Your task to perform on an android device: change alarm snooze length Image 0: 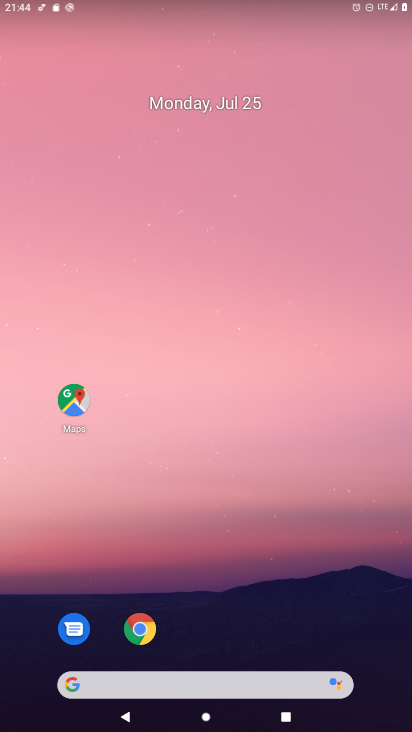
Step 0: drag from (197, 686) to (280, 55)
Your task to perform on an android device: change alarm snooze length Image 1: 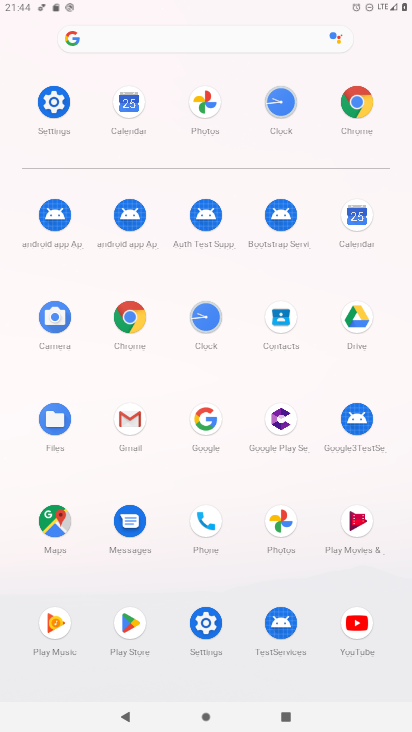
Step 1: click (205, 318)
Your task to perform on an android device: change alarm snooze length Image 2: 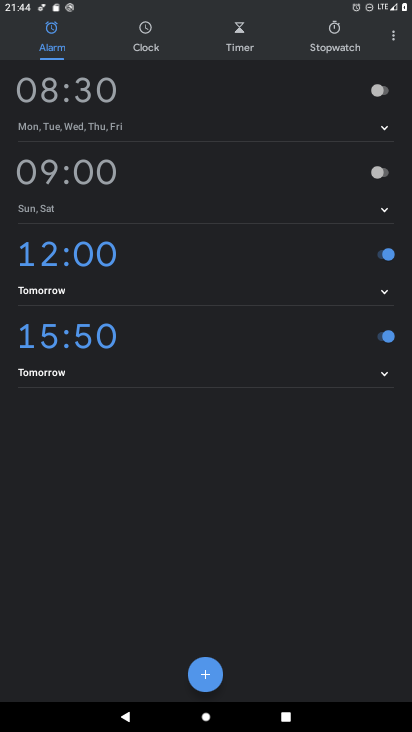
Step 2: click (396, 37)
Your task to perform on an android device: change alarm snooze length Image 3: 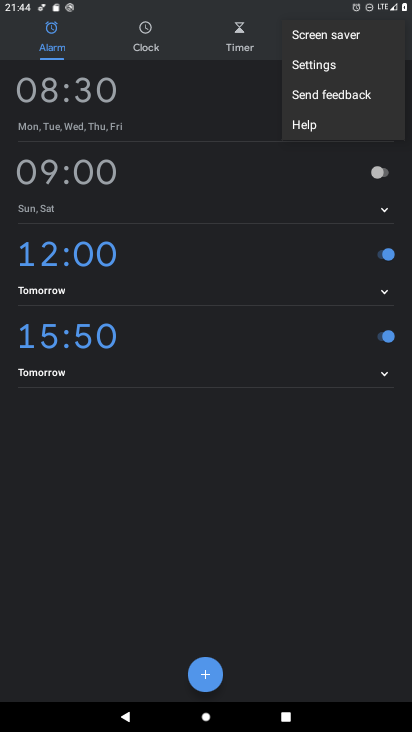
Step 3: click (331, 67)
Your task to perform on an android device: change alarm snooze length Image 4: 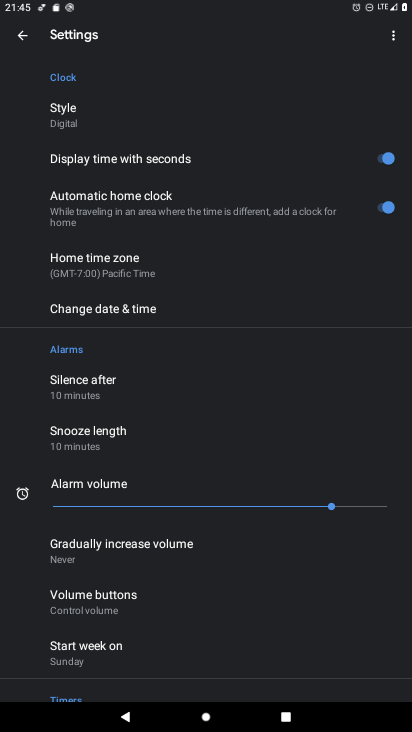
Step 4: click (111, 439)
Your task to perform on an android device: change alarm snooze length Image 5: 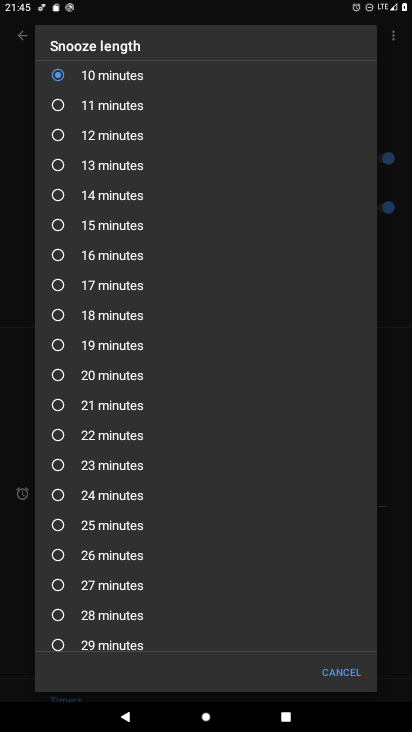
Step 5: drag from (88, 508) to (144, 309)
Your task to perform on an android device: change alarm snooze length Image 6: 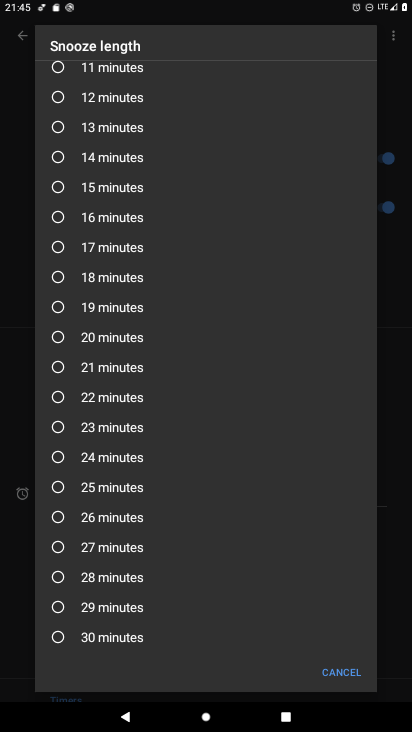
Step 6: click (56, 551)
Your task to perform on an android device: change alarm snooze length Image 7: 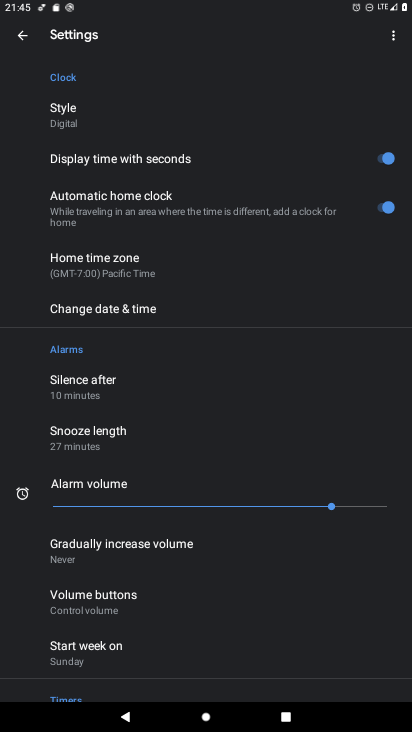
Step 7: task complete